Your task to perform on an android device: Search for Italian restaurants on Maps Image 0: 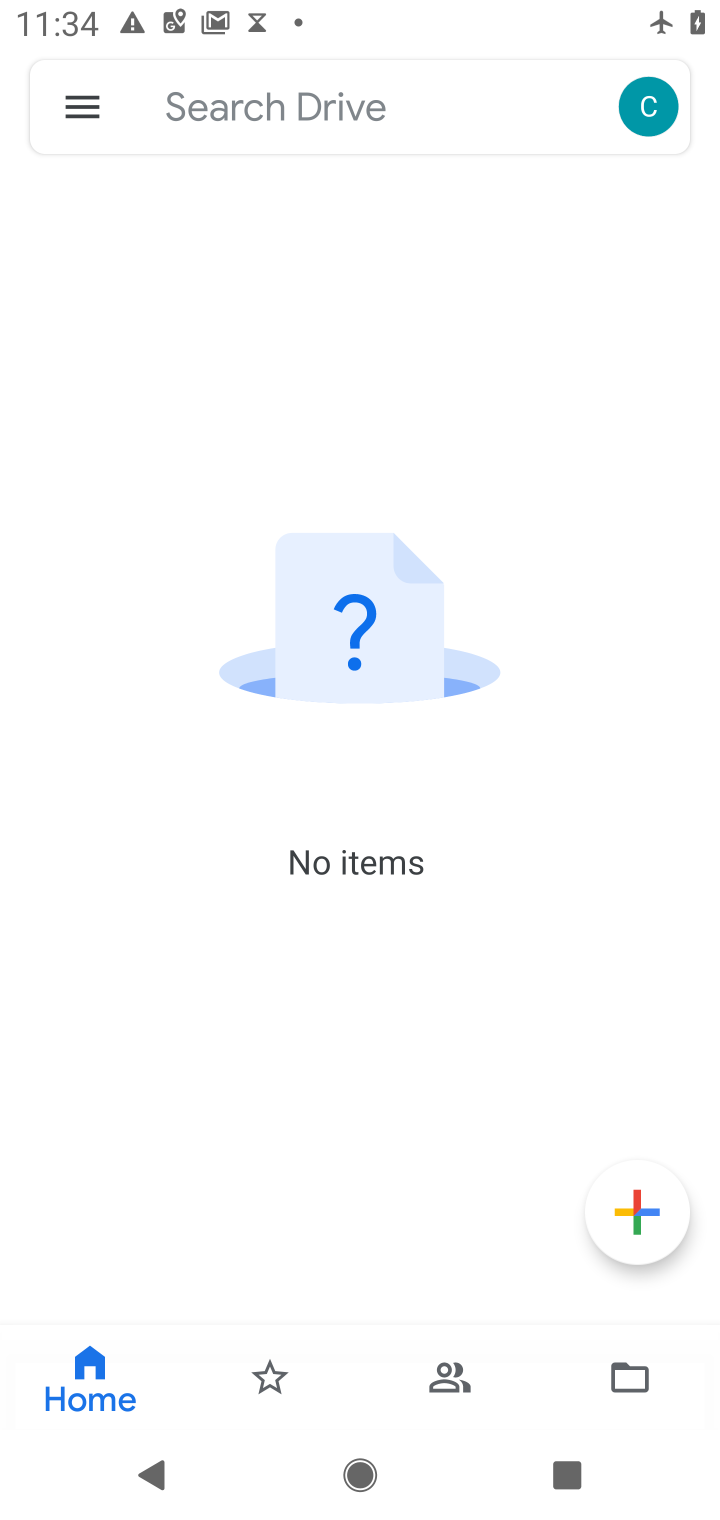
Step 0: press home button
Your task to perform on an android device: Search for Italian restaurants on Maps Image 1: 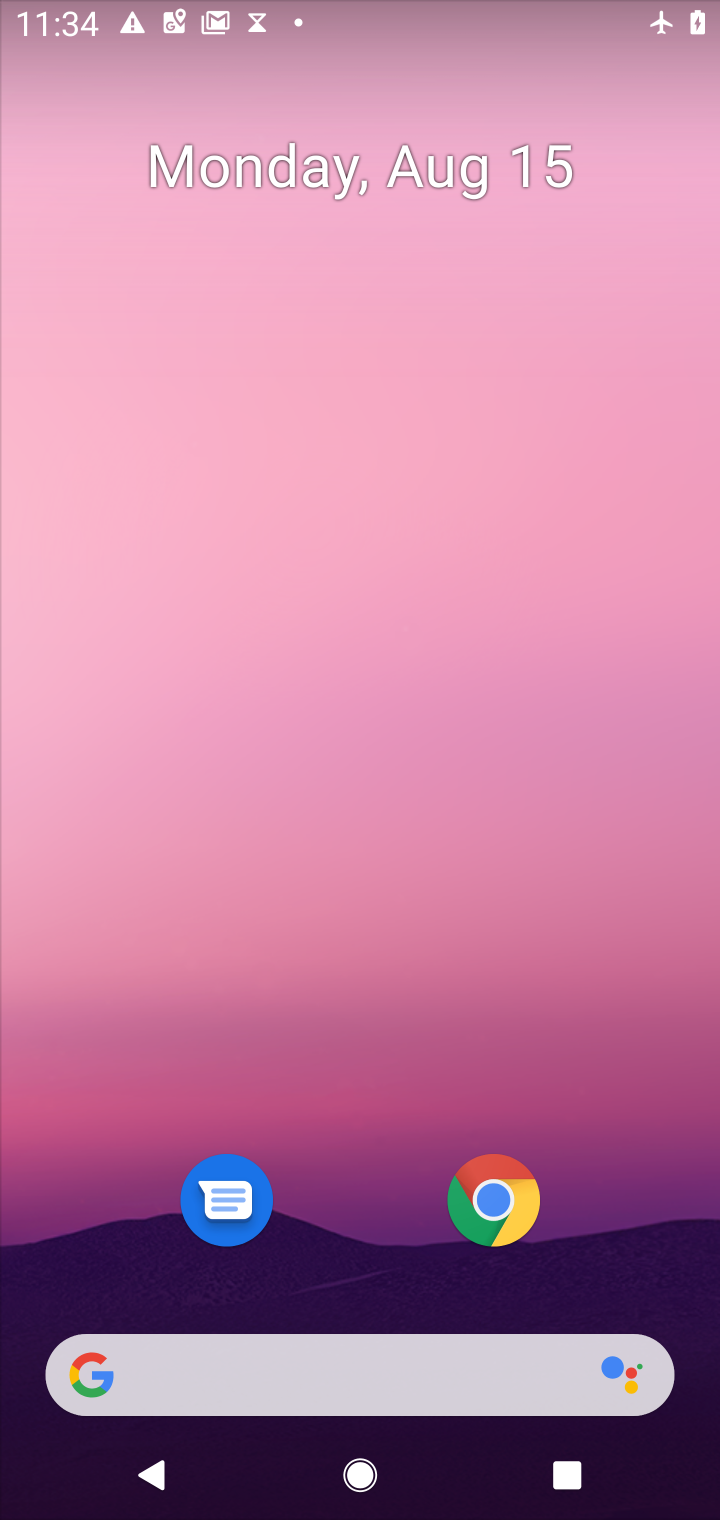
Step 1: drag from (351, 978) to (351, 476)
Your task to perform on an android device: Search for Italian restaurants on Maps Image 2: 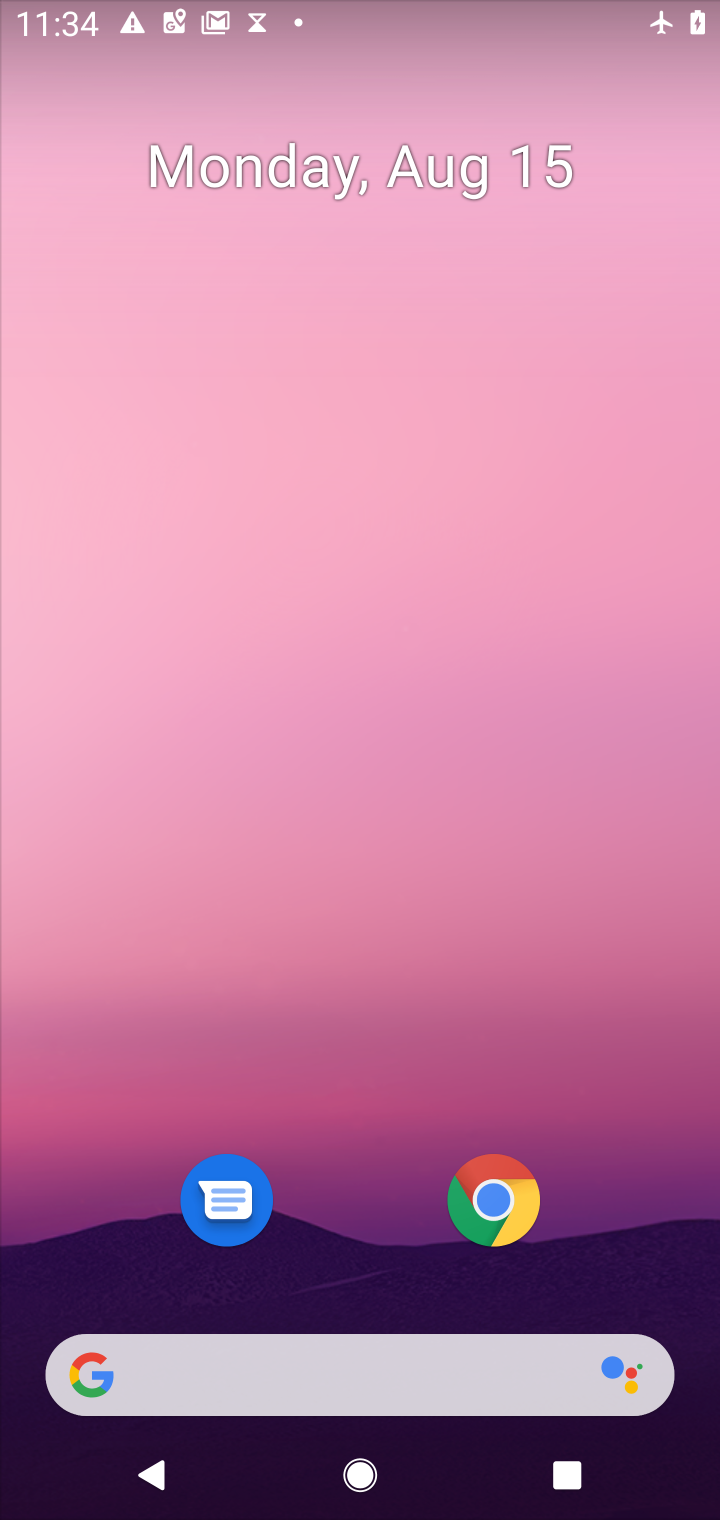
Step 2: click (333, 553)
Your task to perform on an android device: Search for Italian restaurants on Maps Image 3: 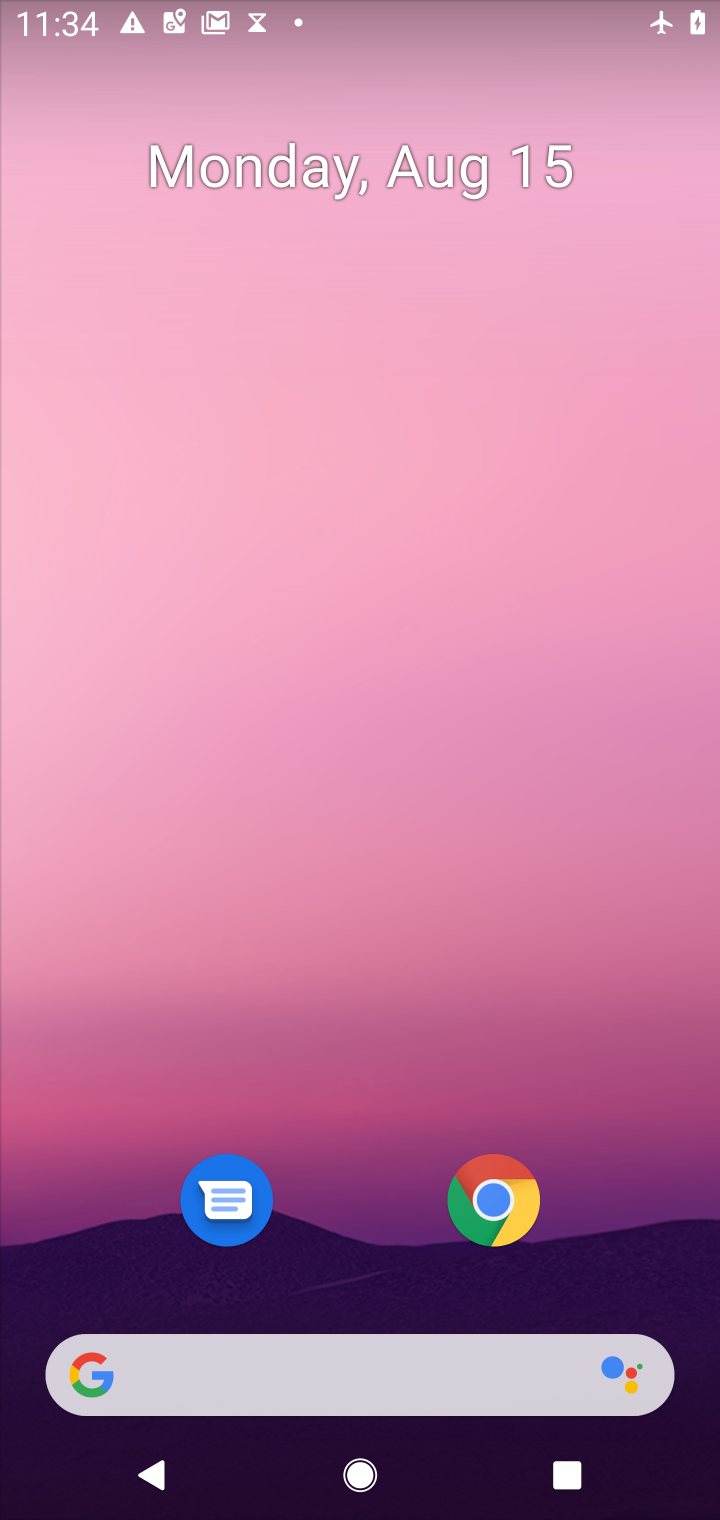
Step 3: drag from (382, 1138) to (382, 400)
Your task to perform on an android device: Search for Italian restaurants on Maps Image 4: 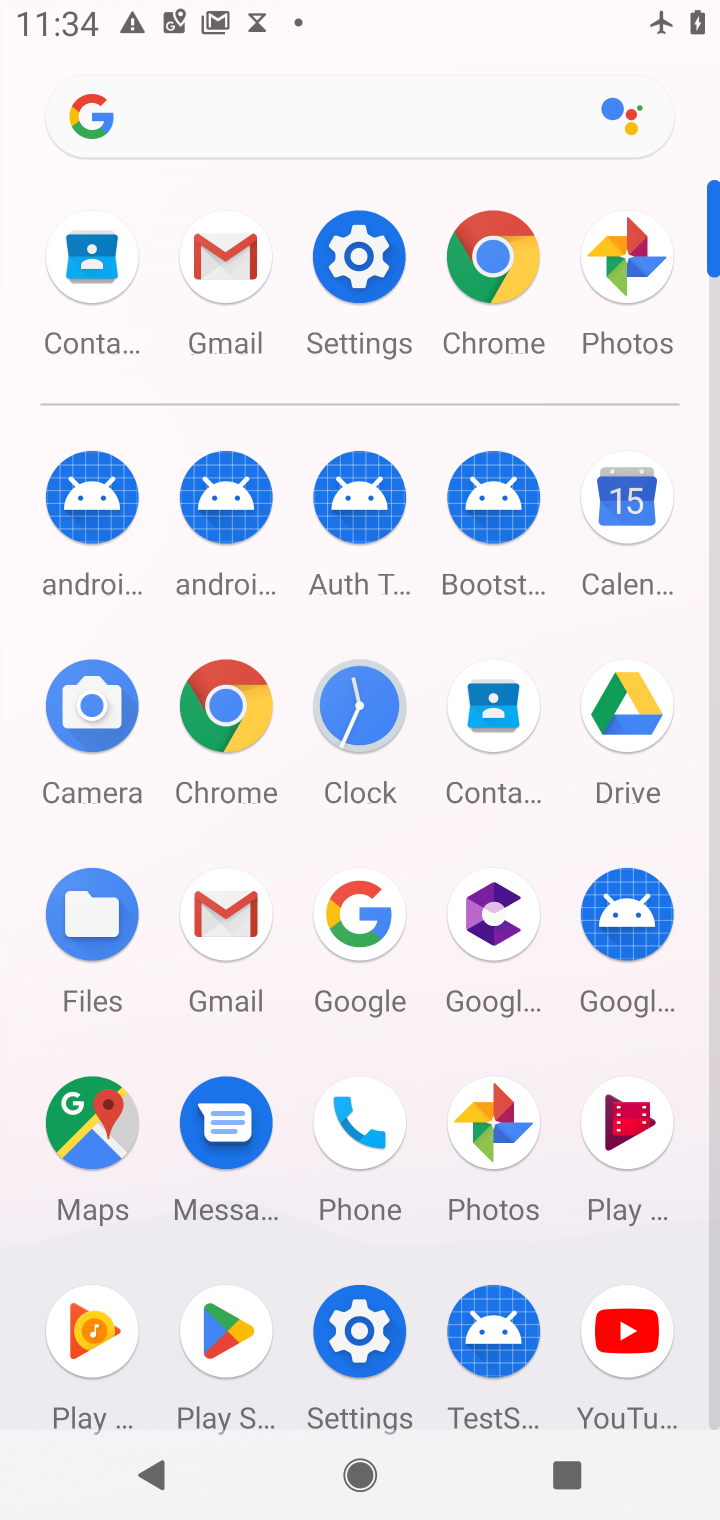
Step 4: click (78, 1132)
Your task to perform on an android device: Search for Italian restaurants on Maps Image 5: 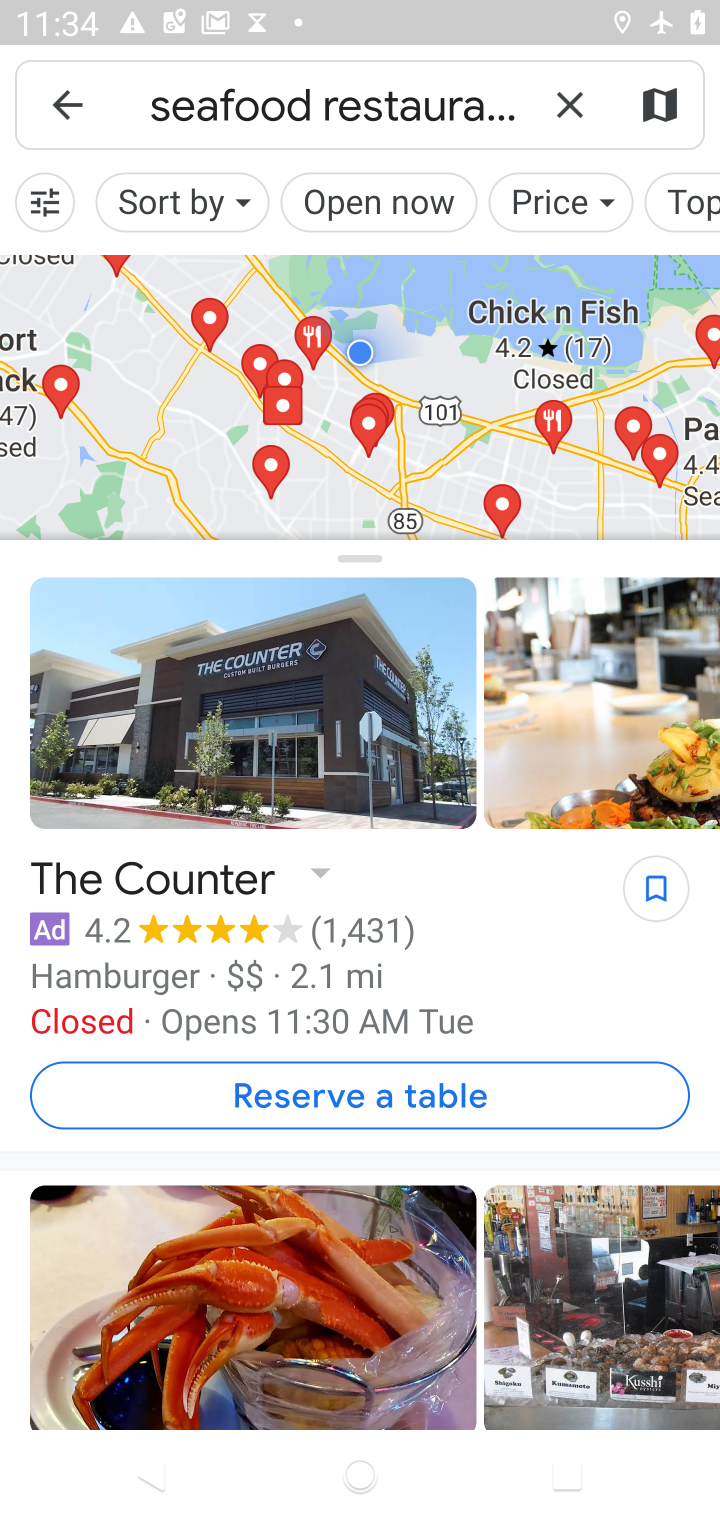
Step 5: click (564, 106)
Your task to perform on an android device: Search for Italian restaurants on Maps Image 6: 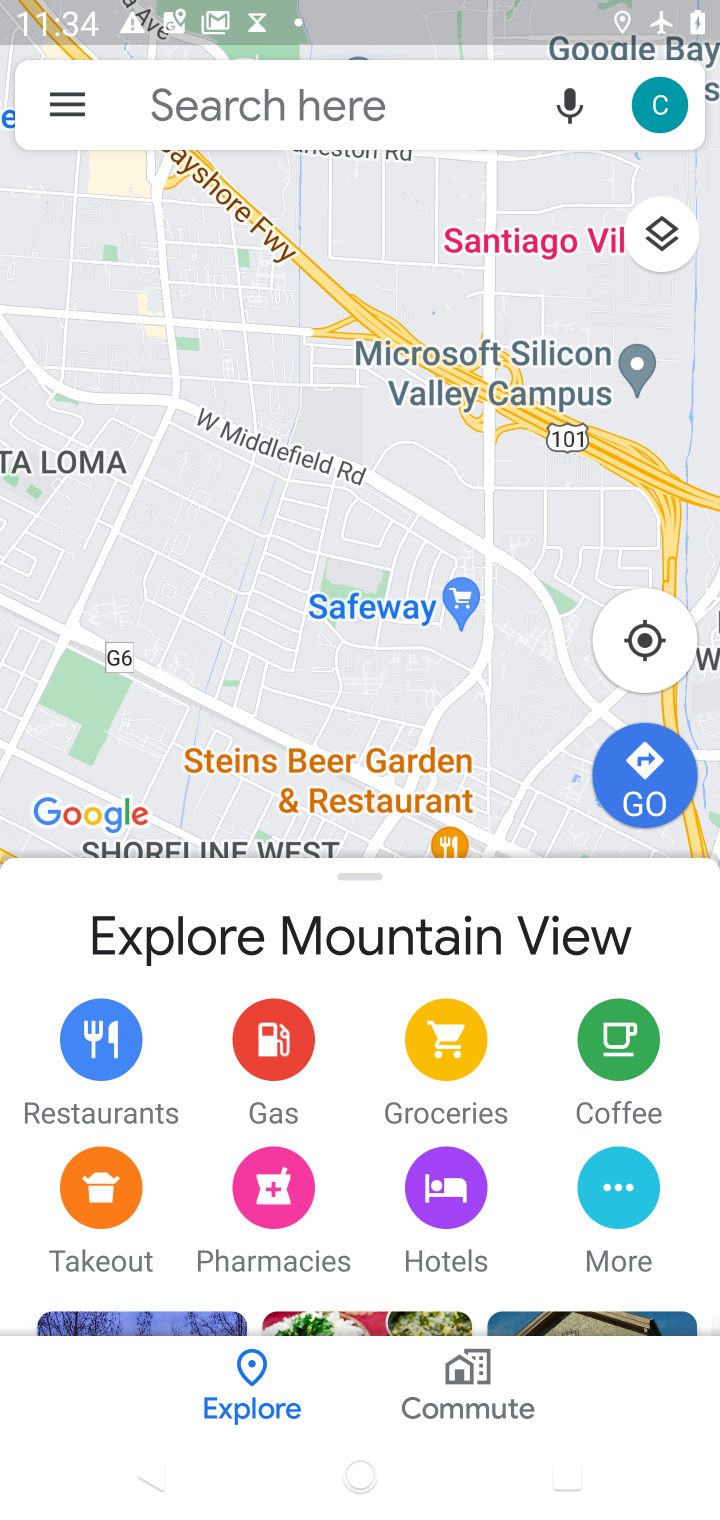
Step 6: type "Italian restaurants "
Your task to perform on an android device: Search for Italian restaurants on Maps Image 7: 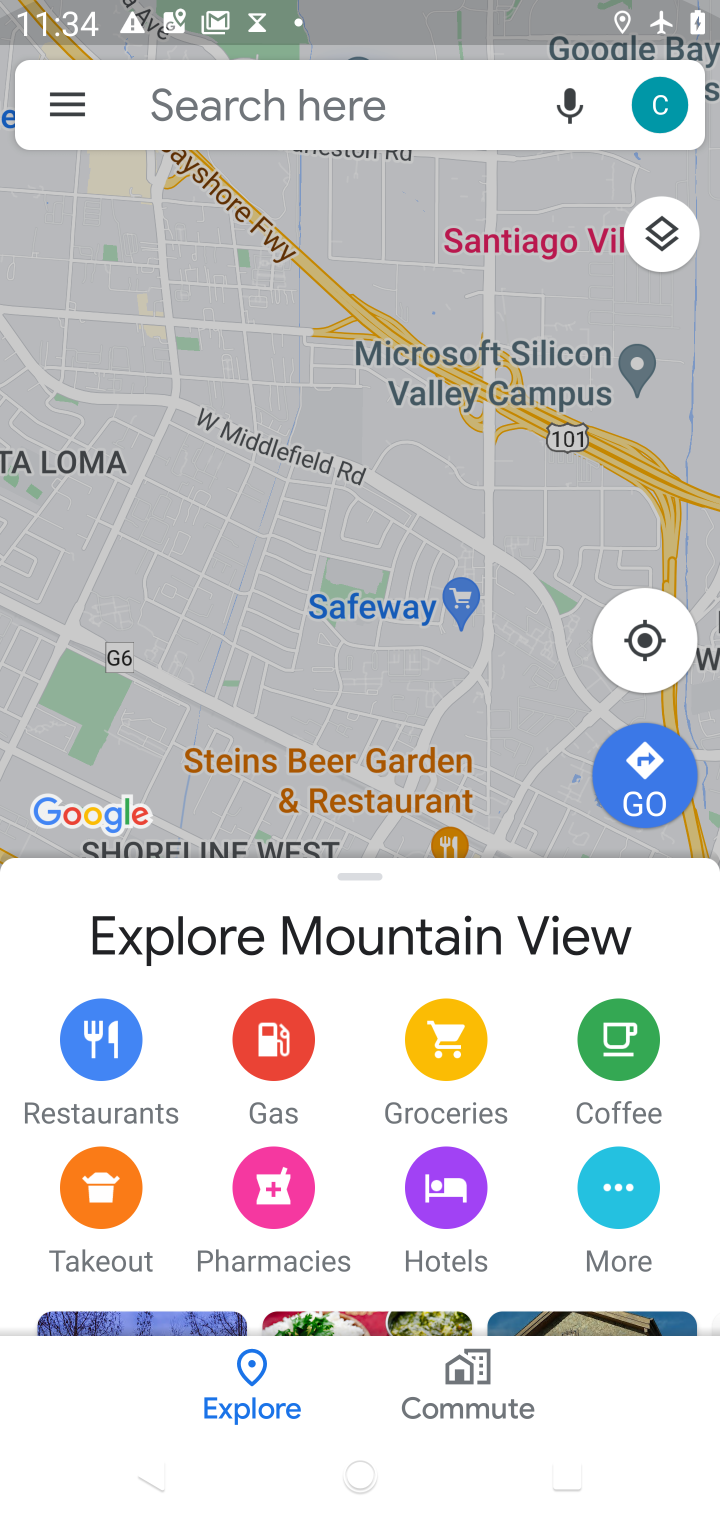
Step 7: type ""
Your task to perform on an android device: Search for Italian restaurants on Maps Image 8: 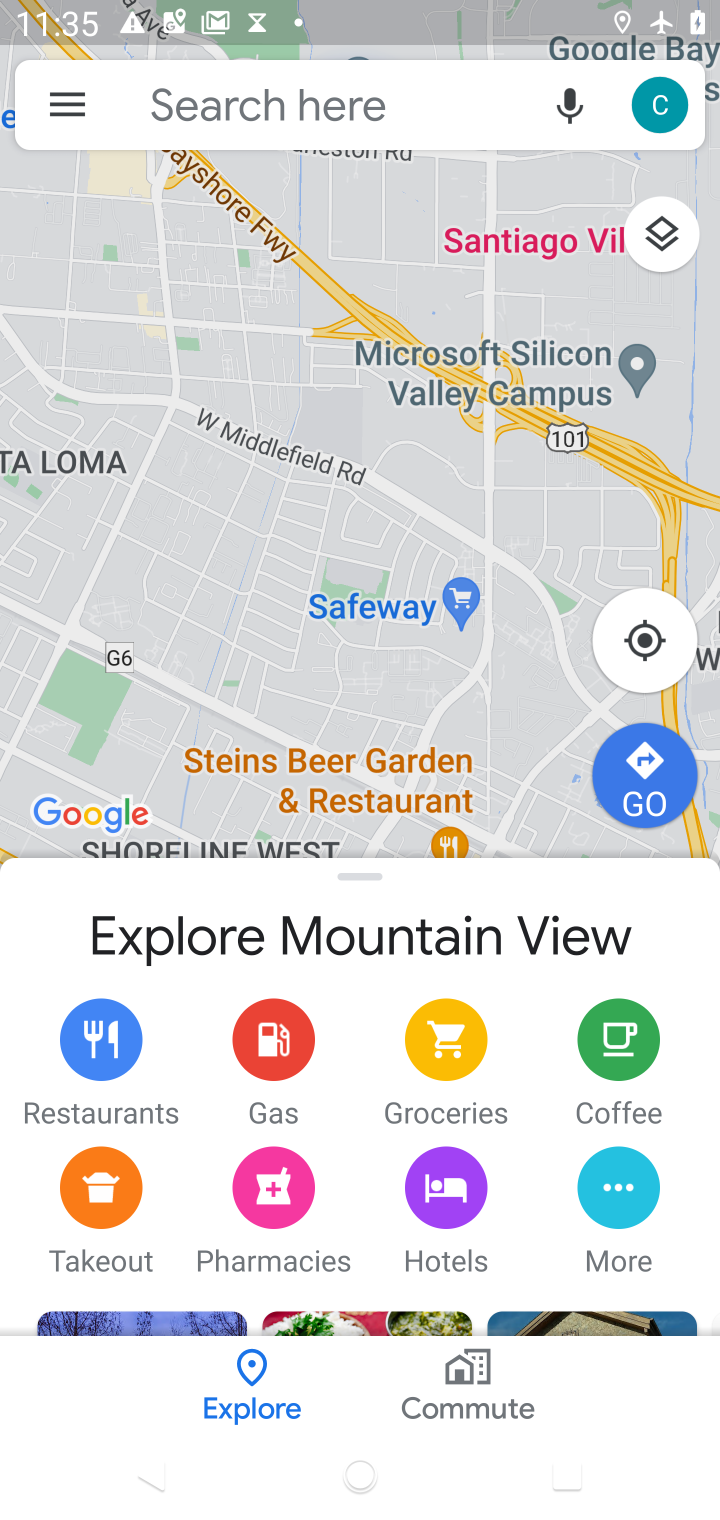
Step 8: click (359, 114)
Your task to perform on an android device: Search for Italian restaurants on Maps Image 9: 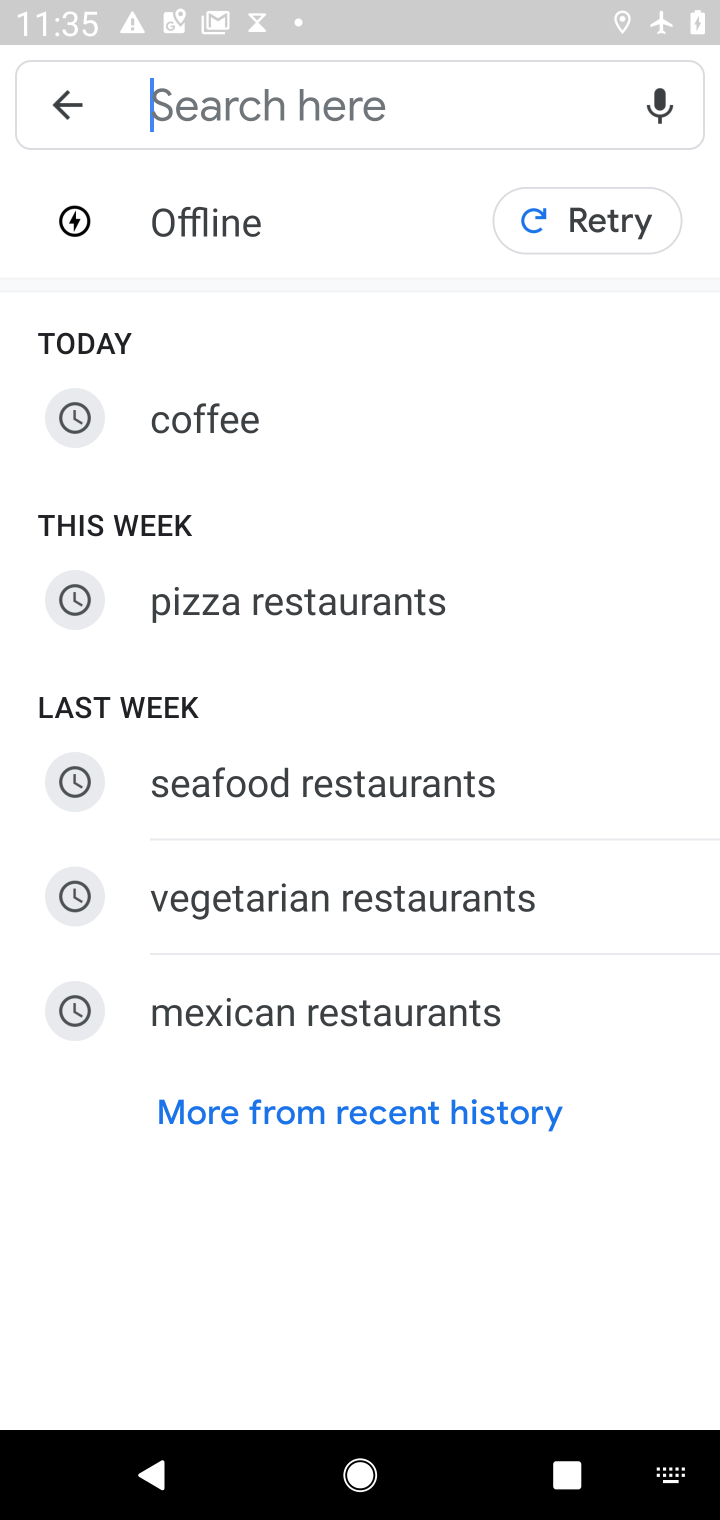
Step 9: type "Italian restaurants"
Your task to perform on an android device: Search for Italian restaurants on Maps Image 10: 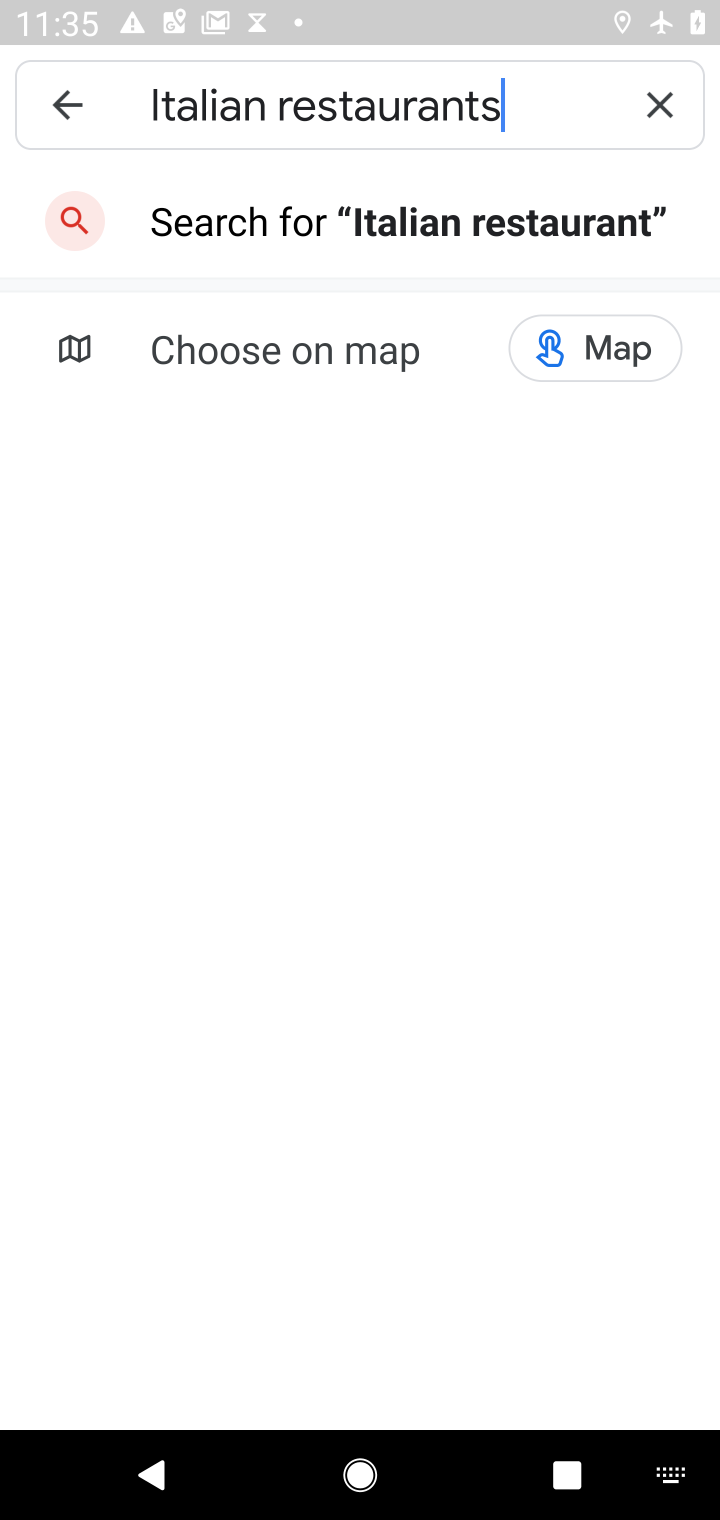
Step 10: type ""
Your task to perform on an android device: Search for Italian restaurants on Maps Image 11: 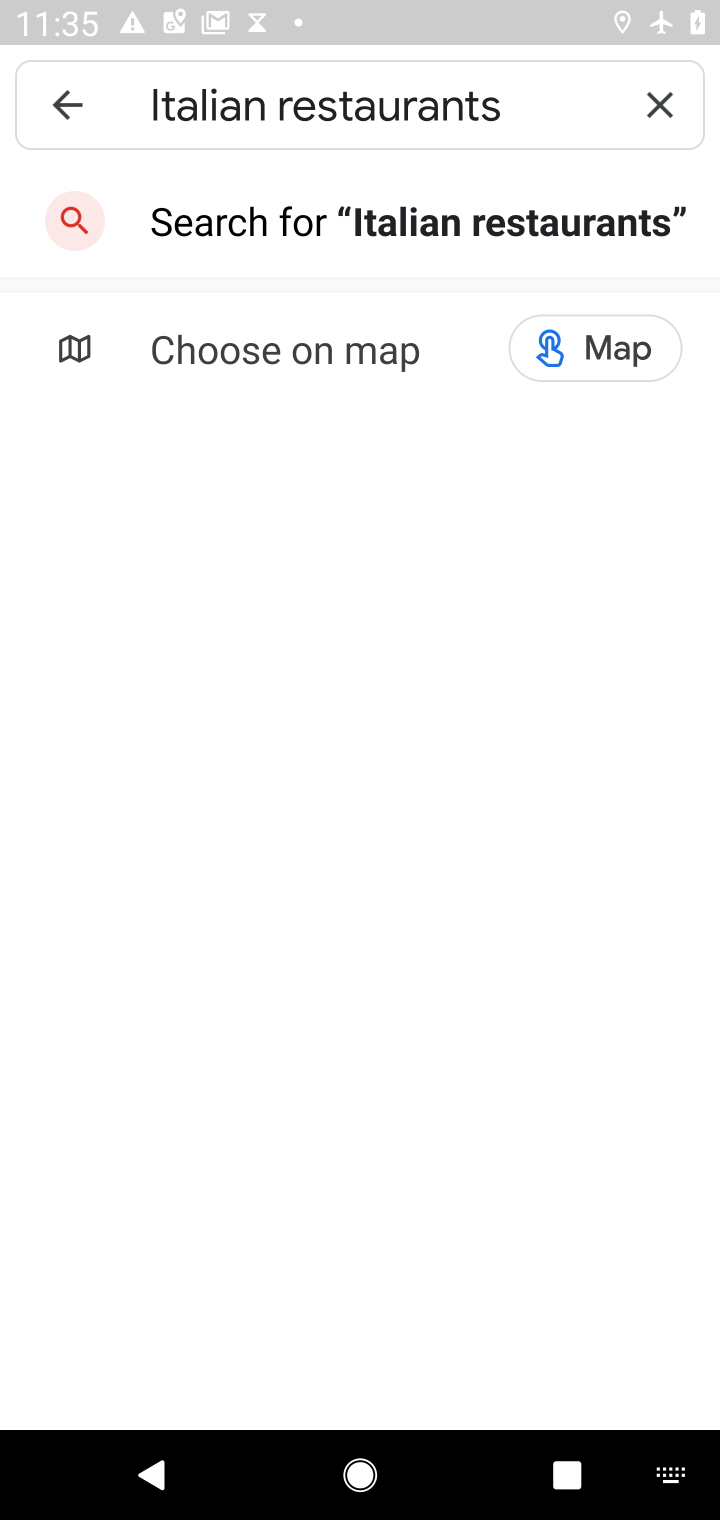
Step 11: click (473, 208)
Your task to perform on an android device: Search for Italian restaurants on Maps Image 12: 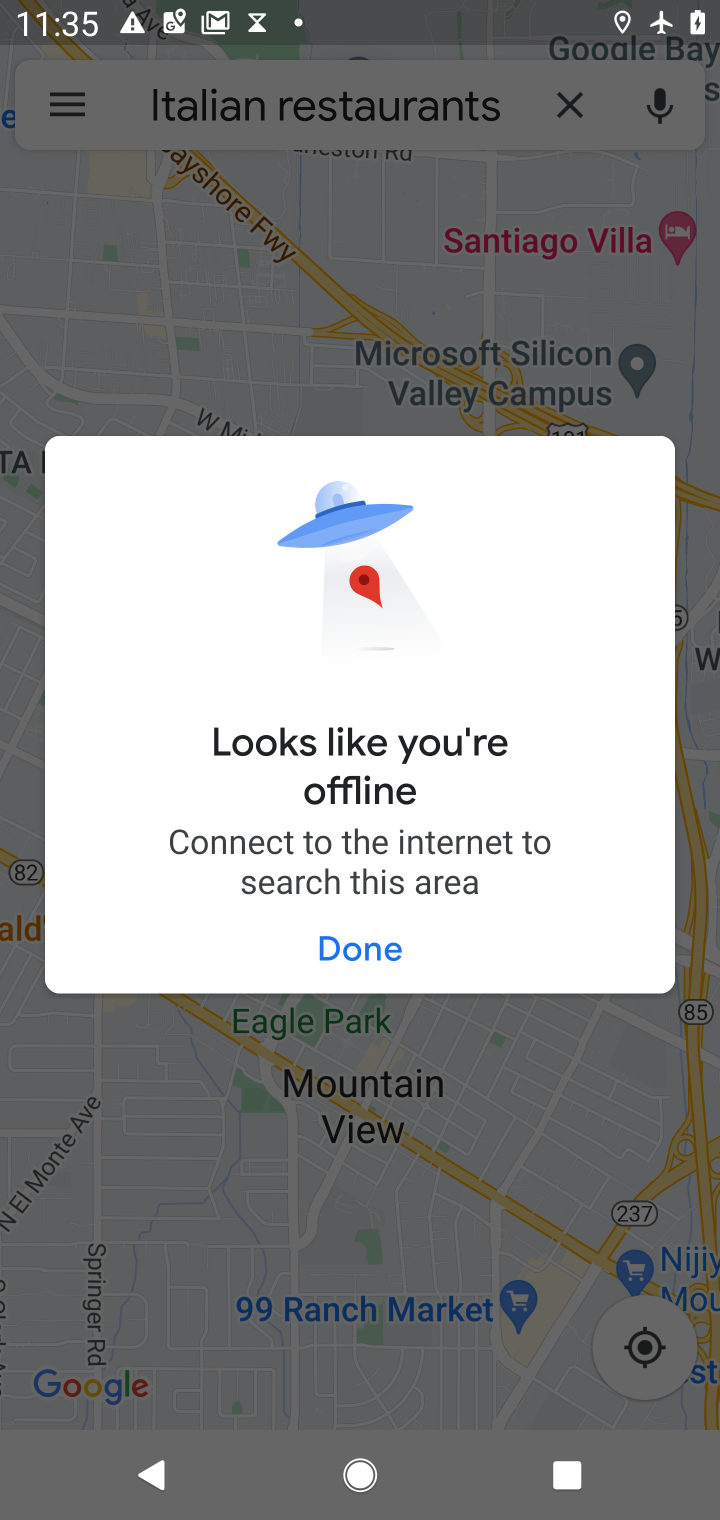
Step 12: task complete